Your task to perform on an android device: refresh tabs in the chrome app Image 0: 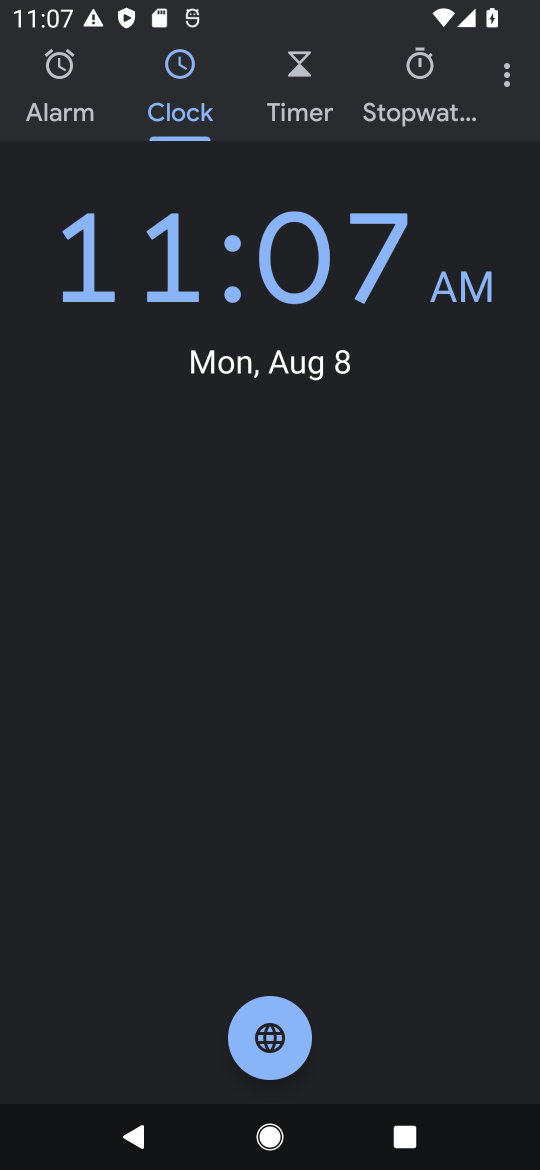
Step 0: click (493, 72)
Your task to perform on an android device: refresh tabs in the chrome app Image 1: 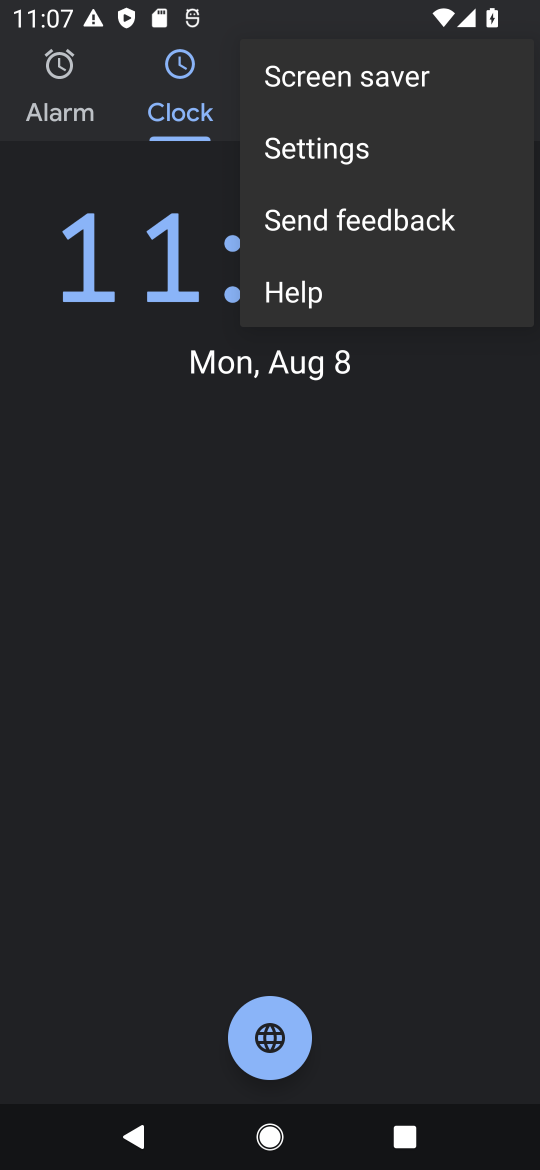
Step 1: task complete